Your task to perform on an android device: Open internet settings Image 0: 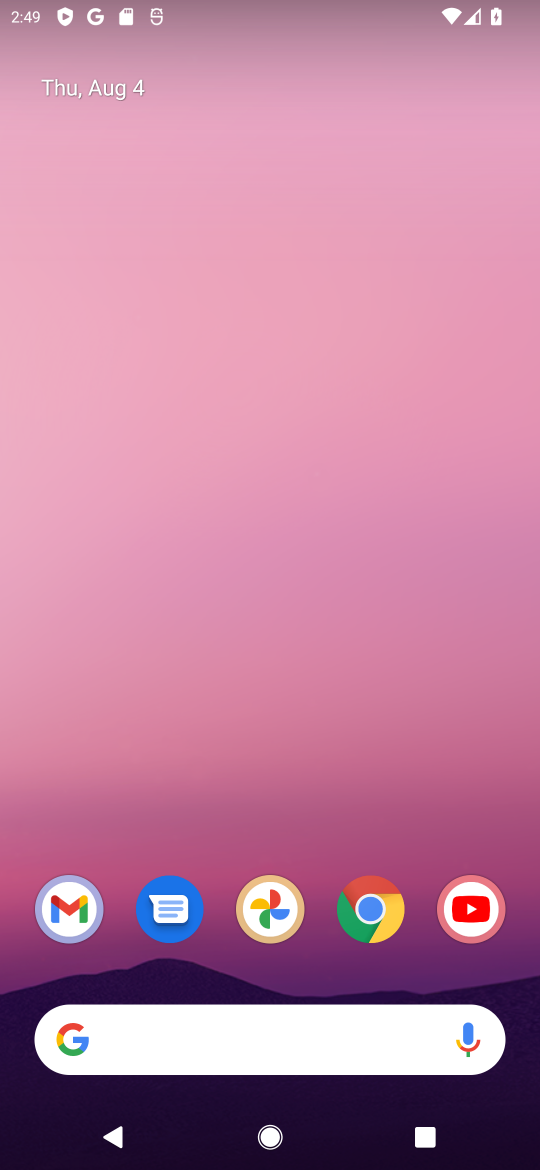
Step 0: drag from (206, 1024) to (410, 140)
Your task to perform on an android device: Open internet settings Image 1: 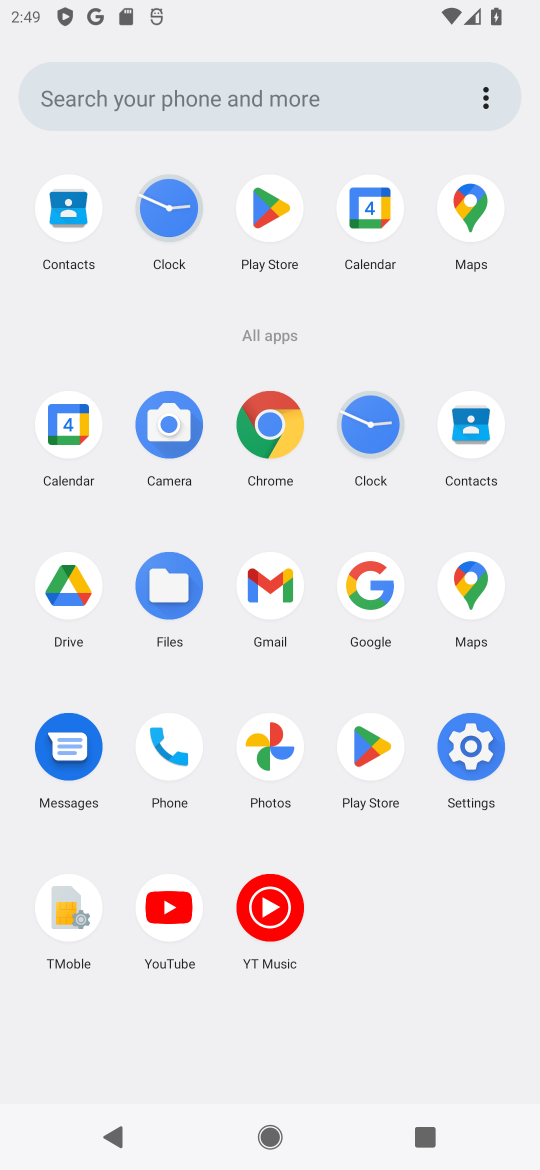
Step 1: click (466, 748)
Your task to perform on an android device: Open internet settings Image 2: 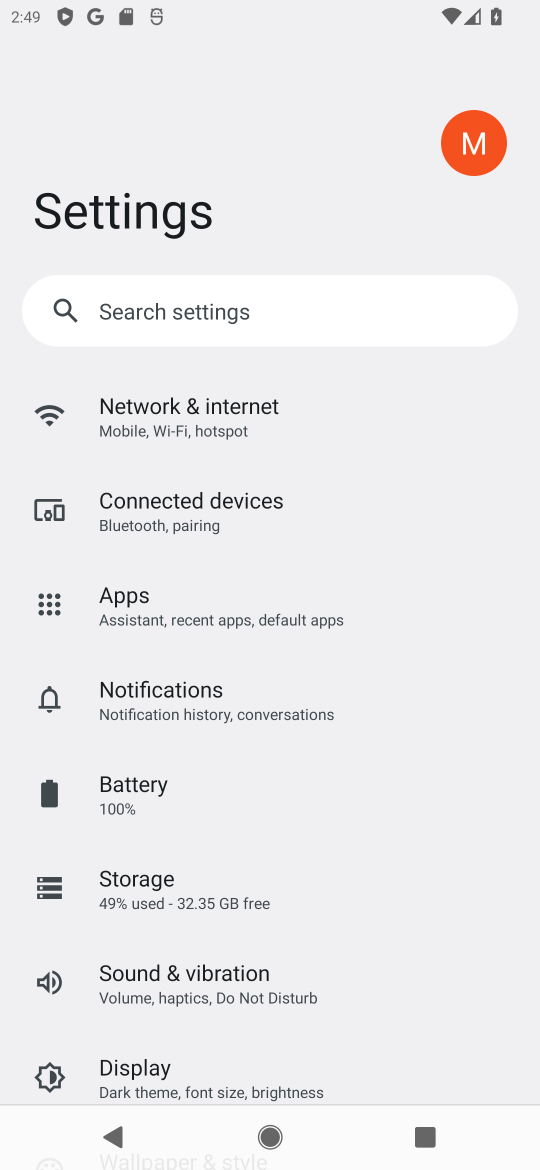
Step 2: click (229, 420)
Your task to perform on an android device: Open internet settings Image 3: 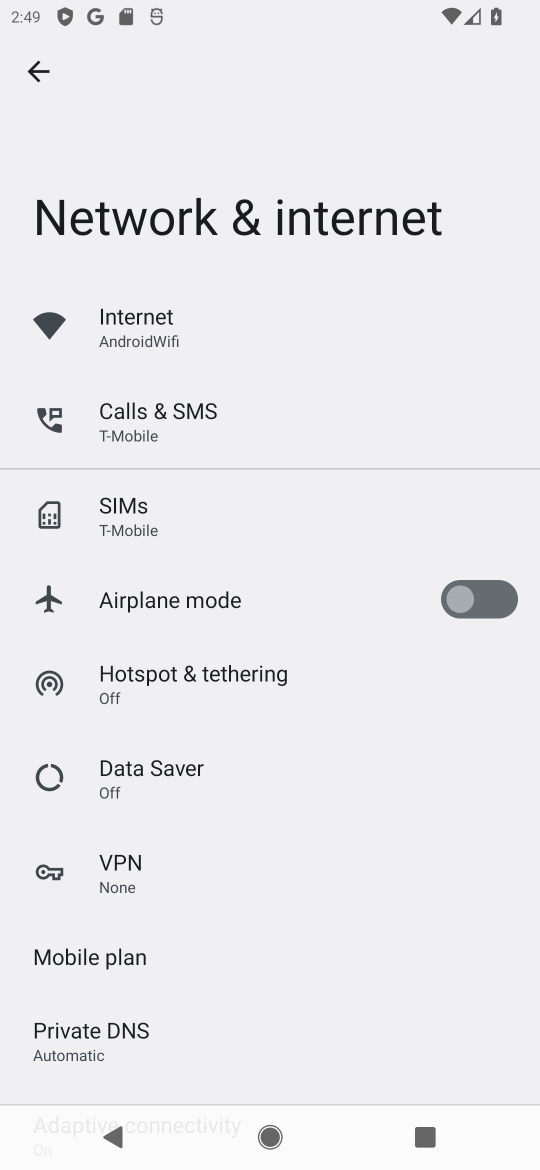
Step 3: click (155, 331)
Your task to perform on an android device: Open internet settings Image 4: 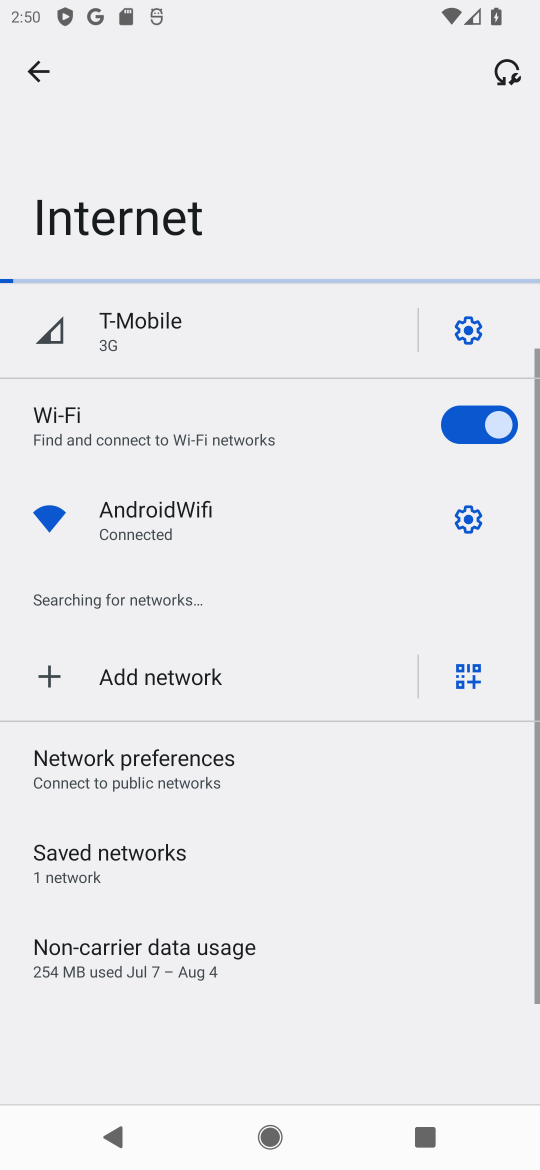
Step 4: task complete